Your task to perform on an android device: Open notification settings Image 0: 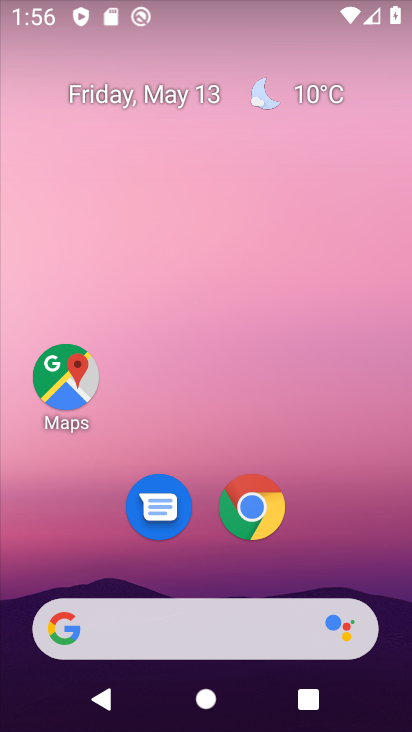
Step 0: drag from (335, 527) to (280, 36)
Your task to perform on an android device: Open notification settings Image 1: 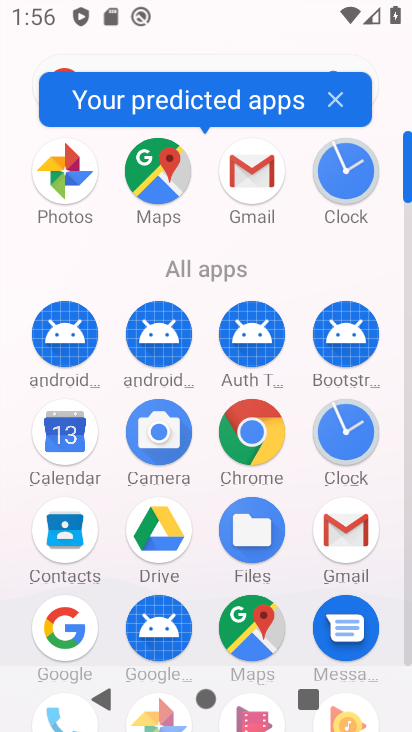
Step 1: drag from (409, 435) to (371, 87)
Your task to perform on an android device: Open notification settings Image 2: 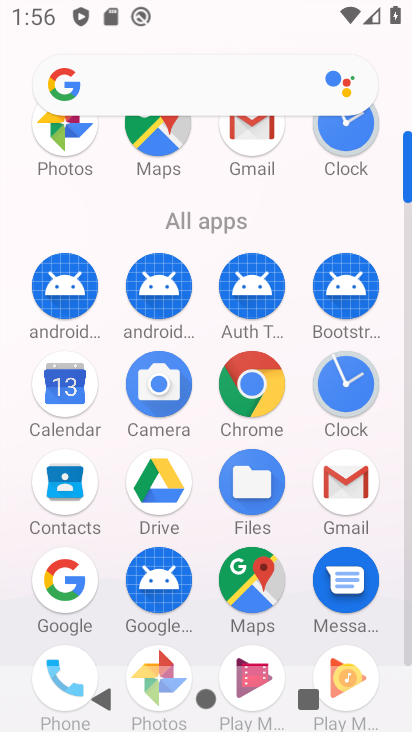
Step 2: drag from (388, 611) to (317, 211)
Your task to perform on an android device: Open notification settings Image 3: 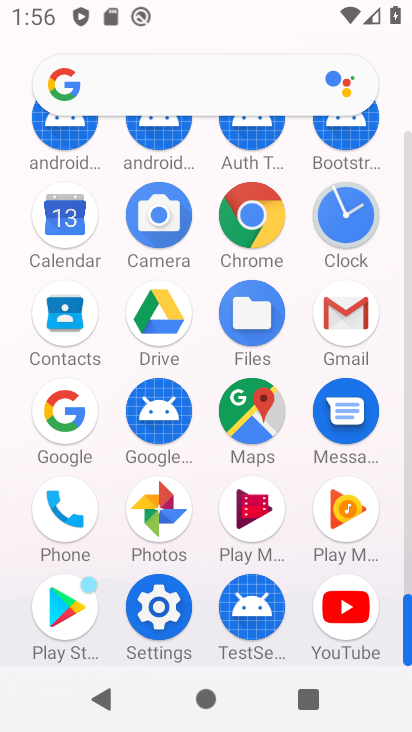
Step 3: click (168, 608)
Your task to perform on an android device: Open notification settings Image 4: 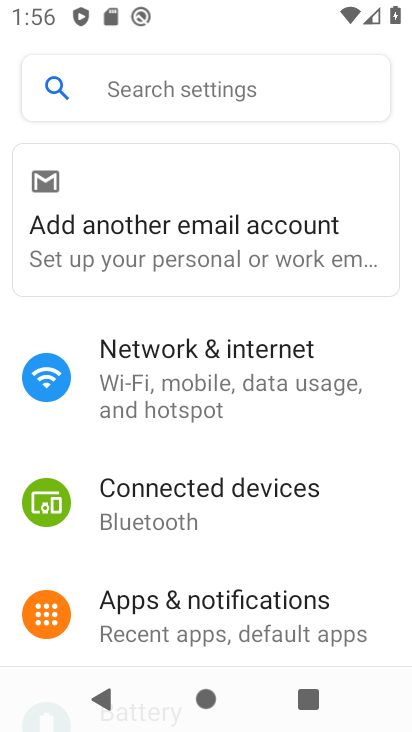
Step 4: click (278, 613)
Your task to perform on an android device: Open notification settings Image 5: 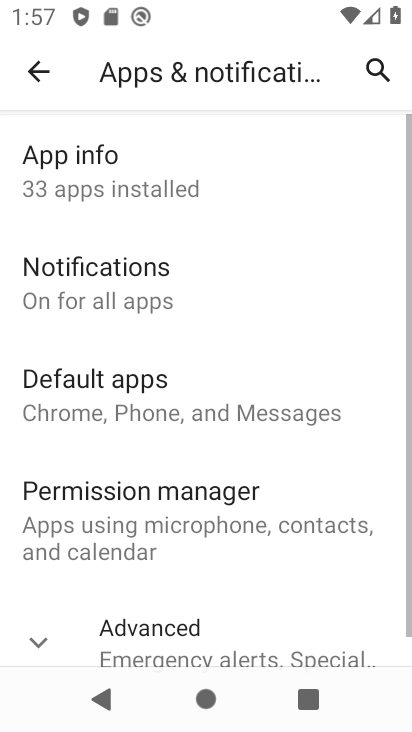
Step 5: click (89, 256)
Your task to perform on an android device: Open notification settings Image 6: 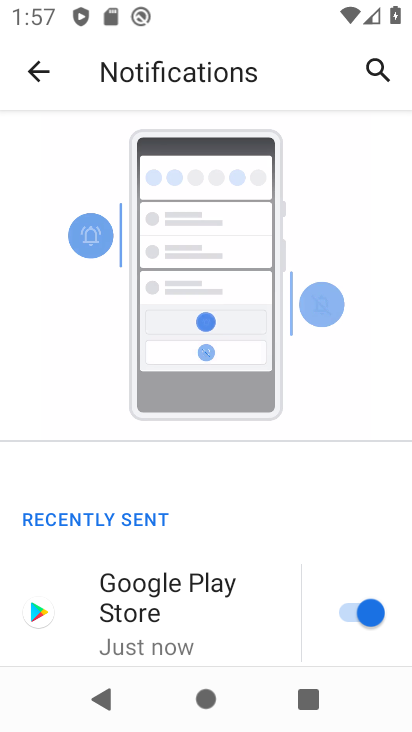
Step 6: task complete